Your task to perform on an android device: Open the phone app and click the voicemail tab. Image 0: 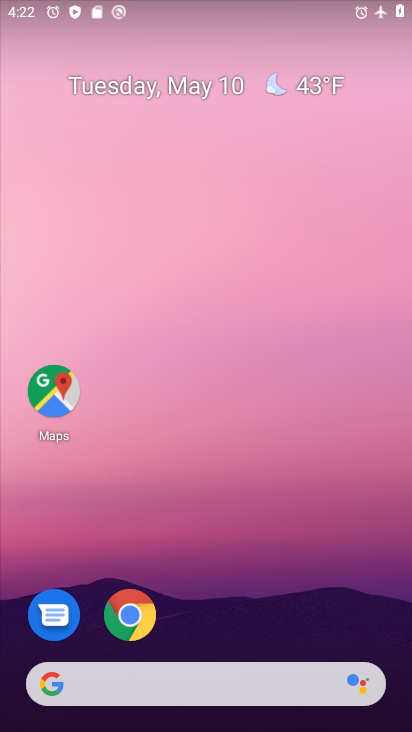
Step 0: drag from (192, 605) to (184, 7)
Your task to perform on an android device: Open the phone app and click the voicemail tab. Image 1: 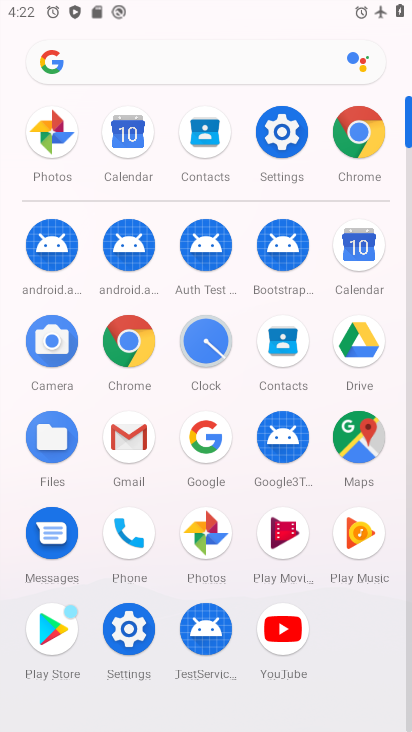
Step 1: drag from (13, 564) to (11, 282)
Your task to perform on an android device: Open the phone app and click the voicemail tab. Image 2: 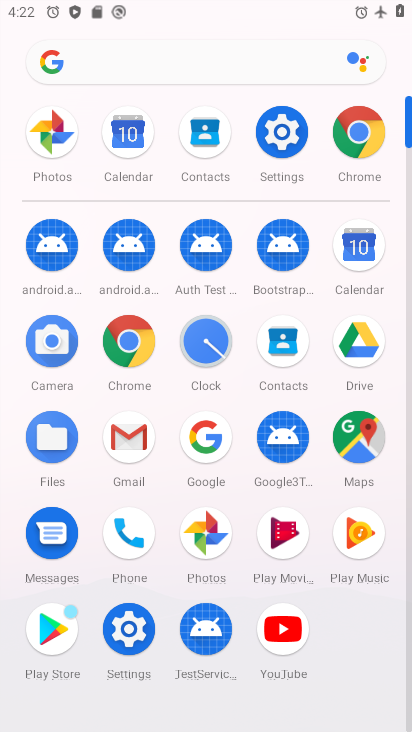
Step 2: click (129, 620)
Your task to perform on an android device: Open the phone app and click the voicemail tab. Image 3: 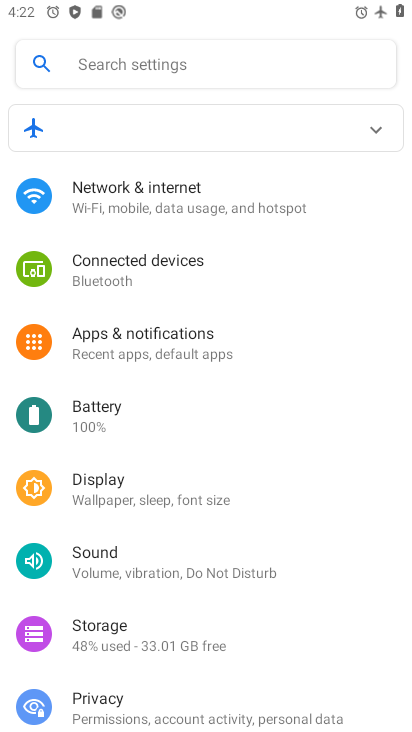
Step 3: press back button
Your task to perform on an android device: Open the phone app and click the voicemail tab. Image 4: 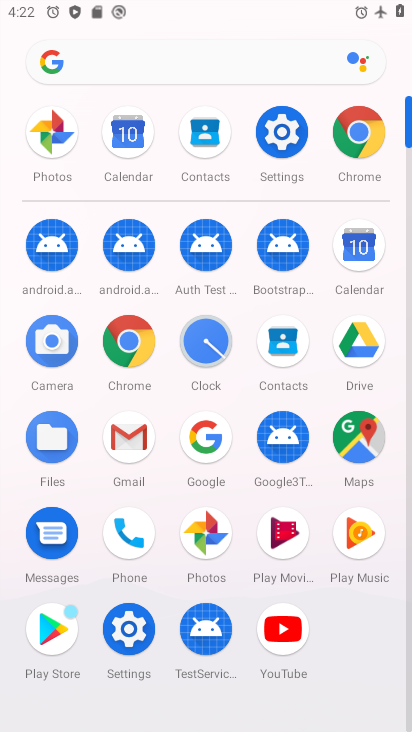
Step 4: click (113, 532)
Your task to perform on an android device: Open the phone app and click the voicemail tab. Image 5: 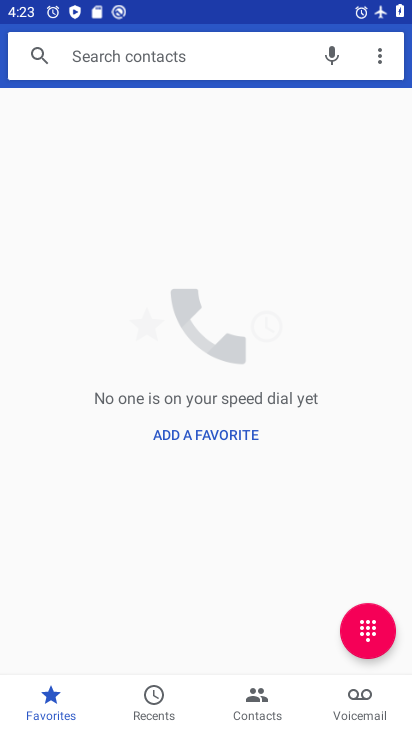
Step 5: click (364, 699)
Your task to perform on an android device: Open the phone app and click the voicemail tab. Image 6: 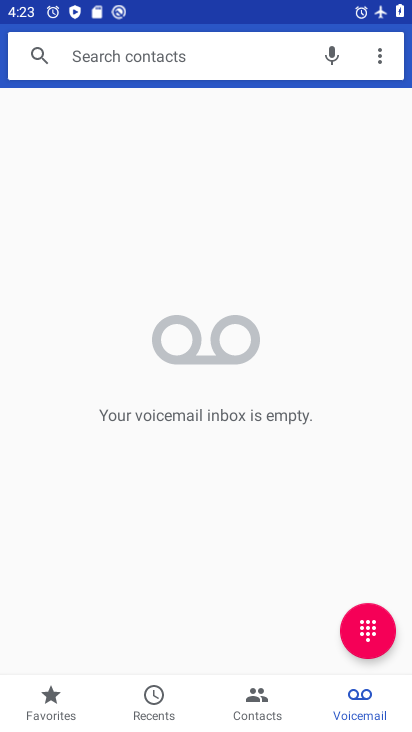
Step 6: task complete